Your task to perform on an android device: Go to CNN.com Image 0: 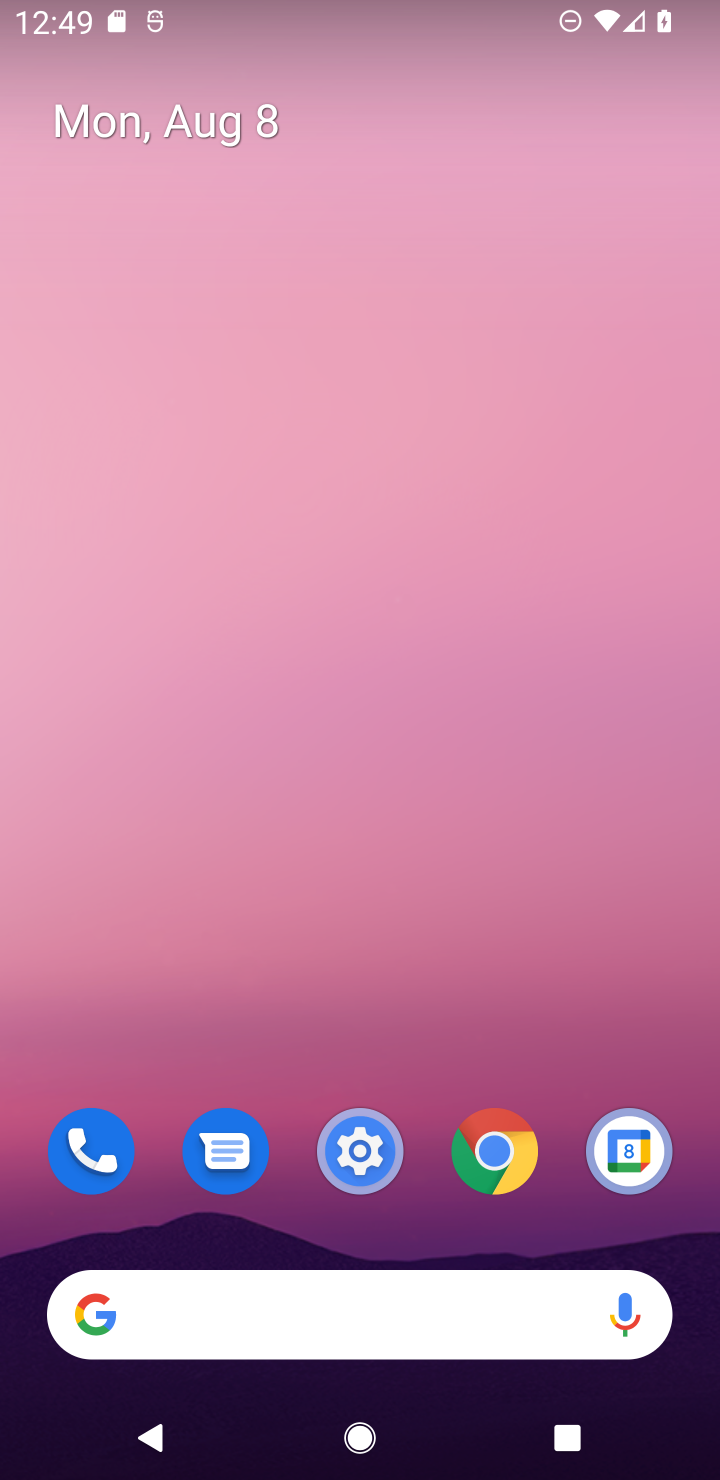
Step 0: drag from (320, 1167) to (250, 678)
Your task to perform on an android device: Go to CNN.com Image 1: 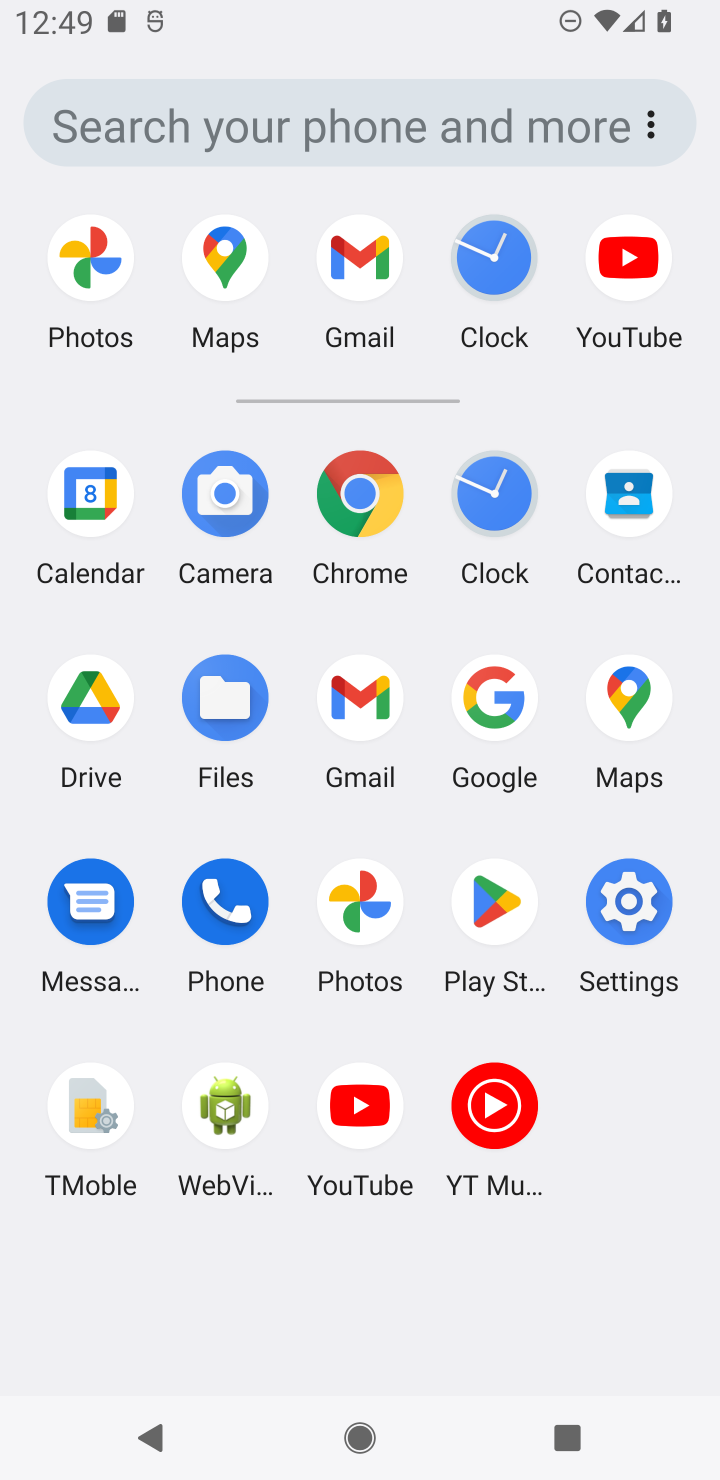
Step 1: click (502, 695)
Your task to perform on an android device: Go to CNN.com Image 2: 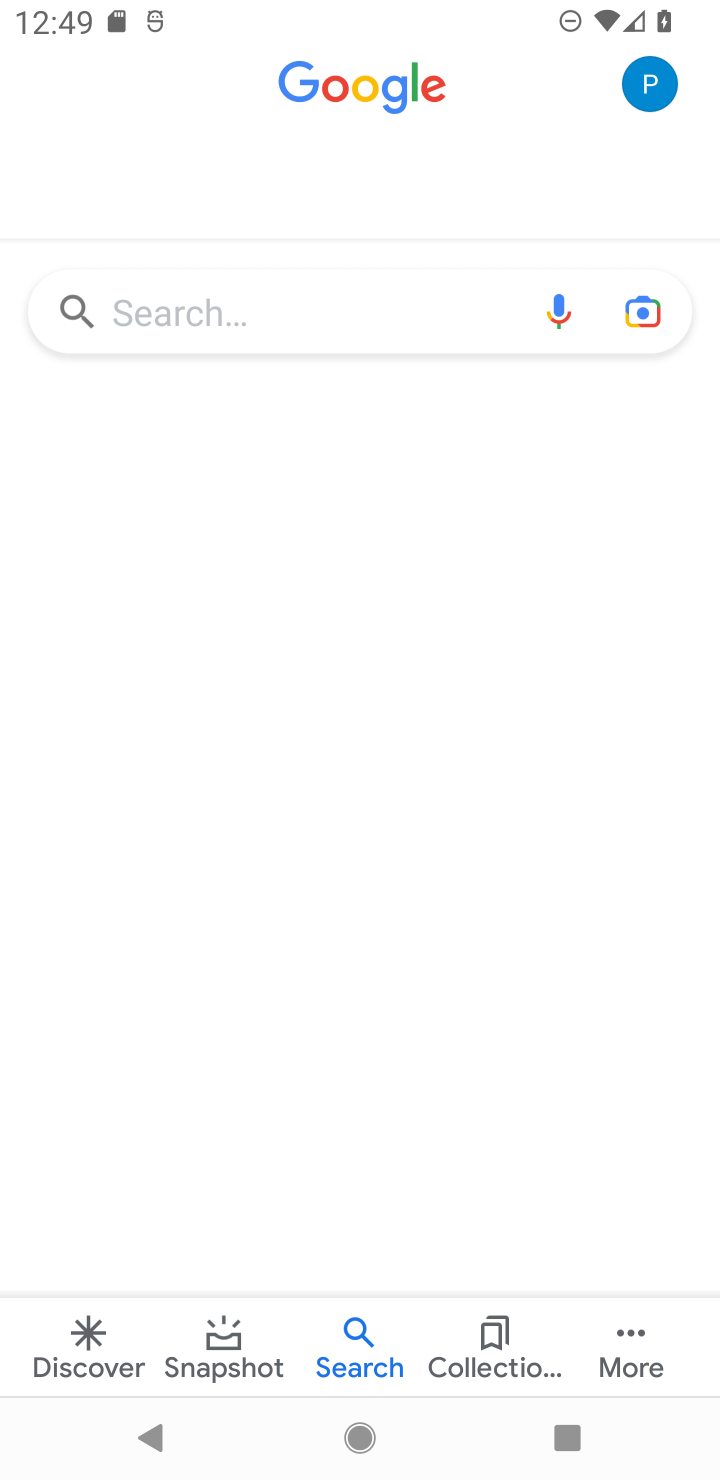
Step 2: click (279, 314)
Your task to perform on an android device: Go to CNN.com Image 3: 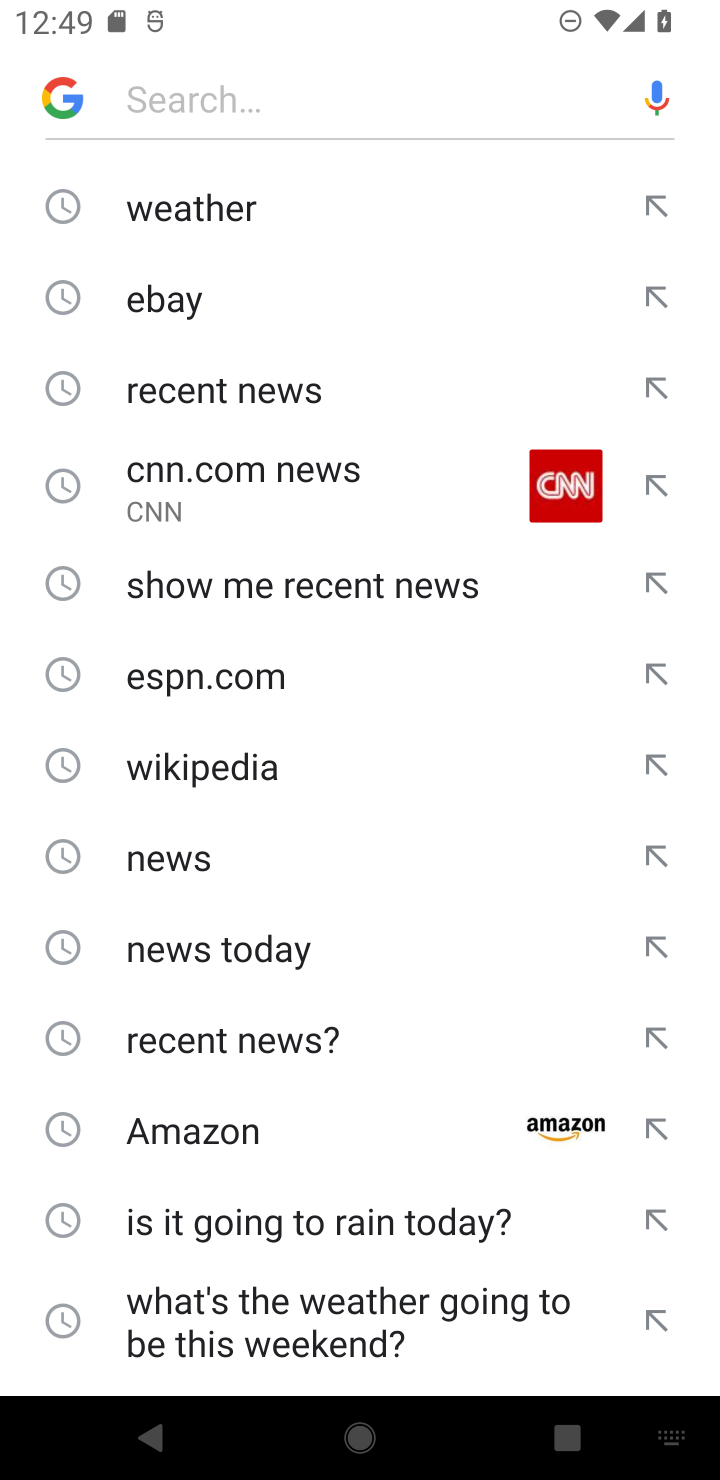
Step 3: click (215, 483)
Your task to perform on an android device: Go to CNN.com Image 4: 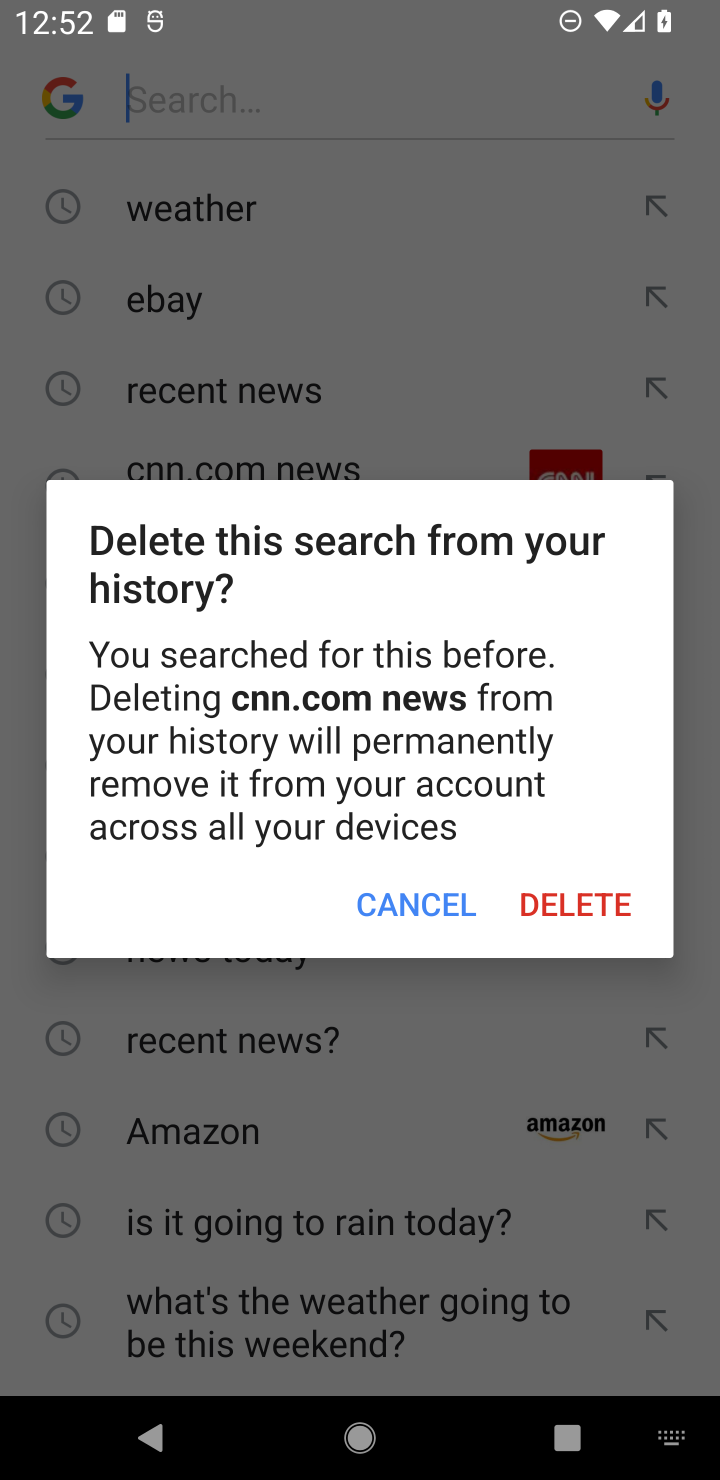
Step 4: click (392, 903)
Your task to perform on an android device: Go to CNN.com Image 5: 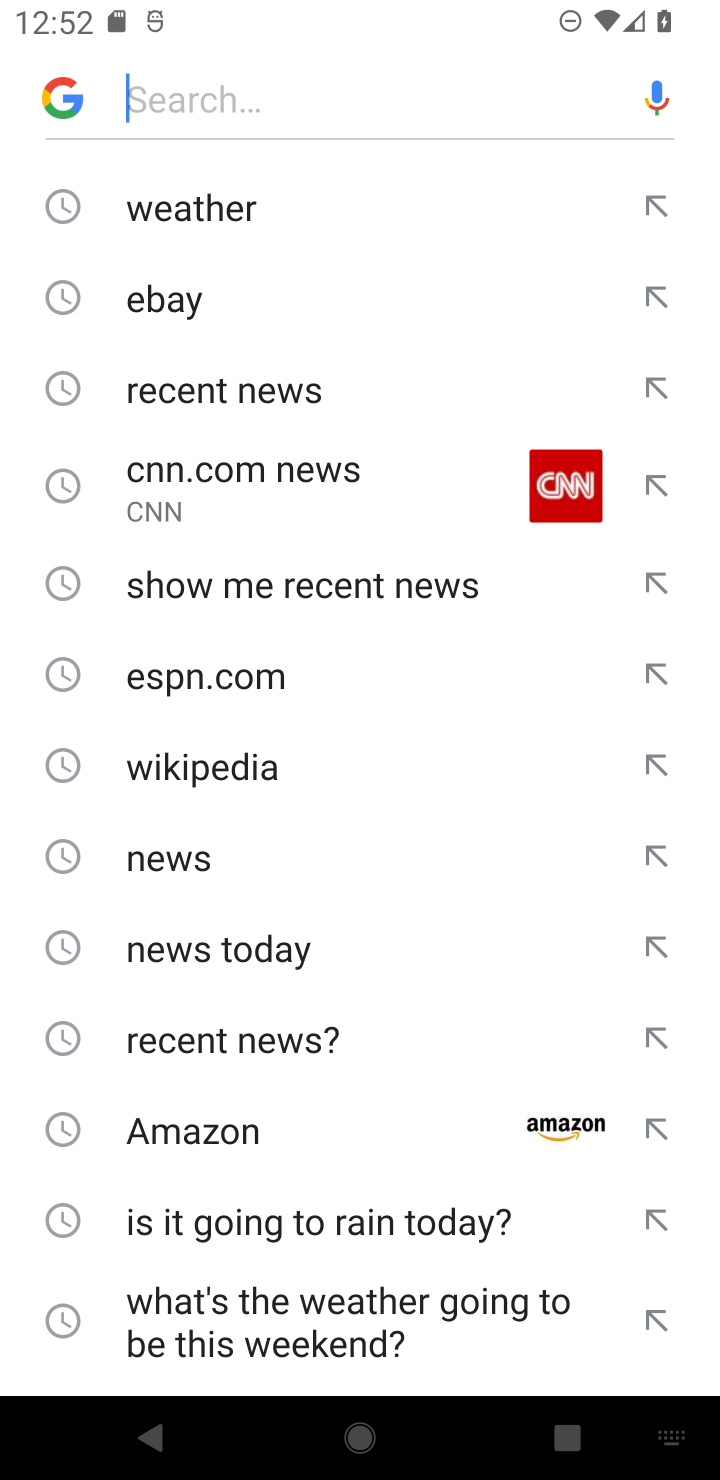
Step 5: click (257, 473)
Your task to perform on an android device: Go to CNN.com Image 6: 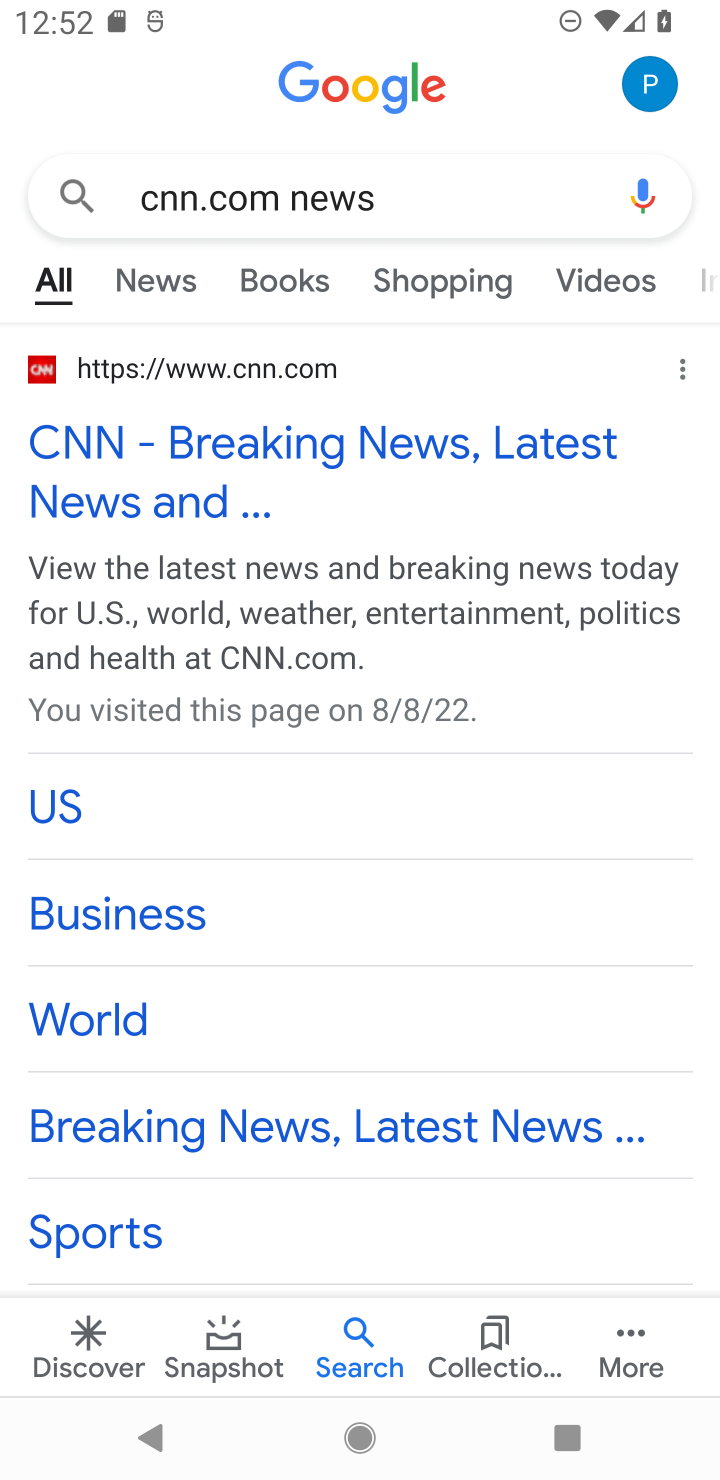
Step 6: click (311, 470)
Your task to perform on an android device: Go to CNN.com Image 7: 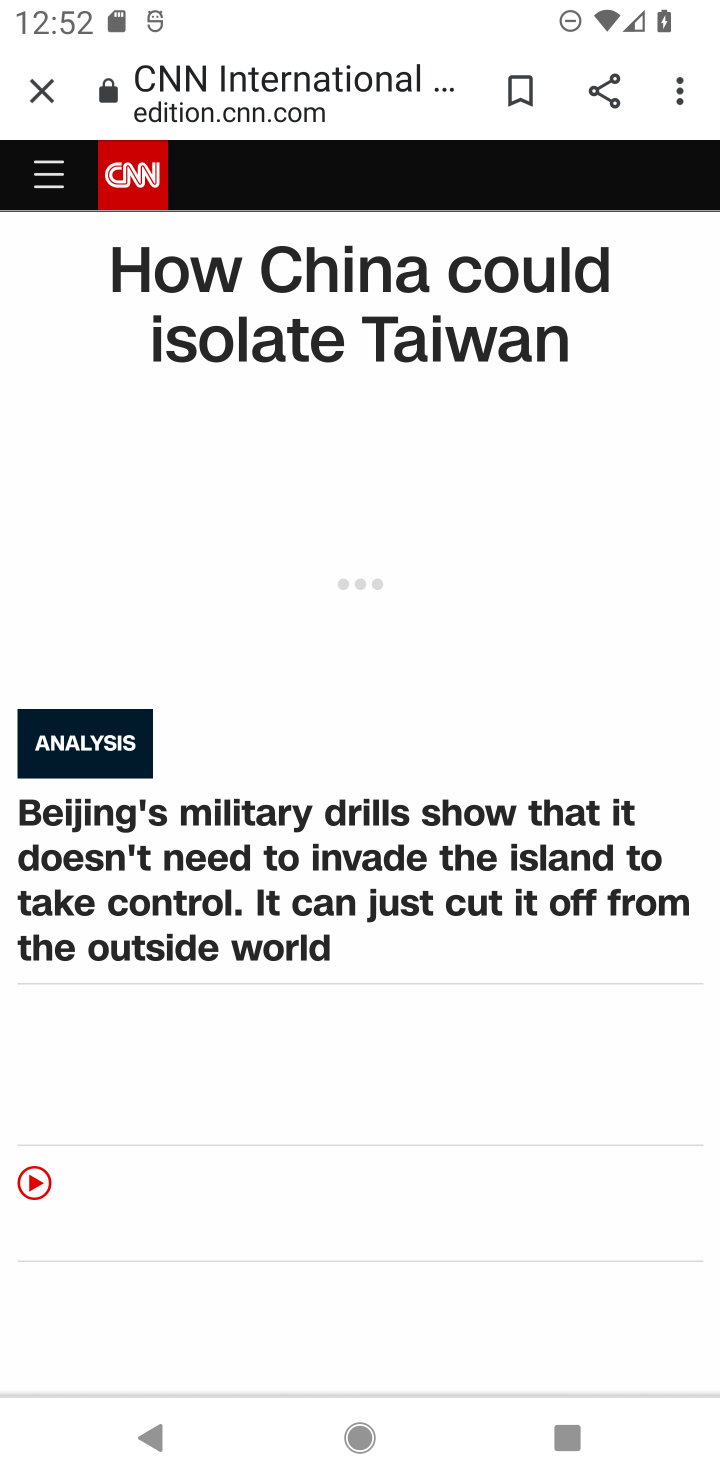
Step 7: task complete